Your task to perform on an android device: What is the recent news? Image 0: 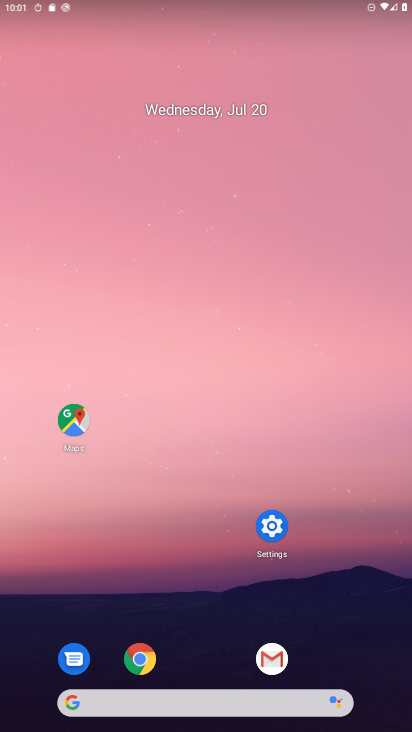
Step 0: press home button
Your task to perform on an android device: What is the recent news? Image 1: 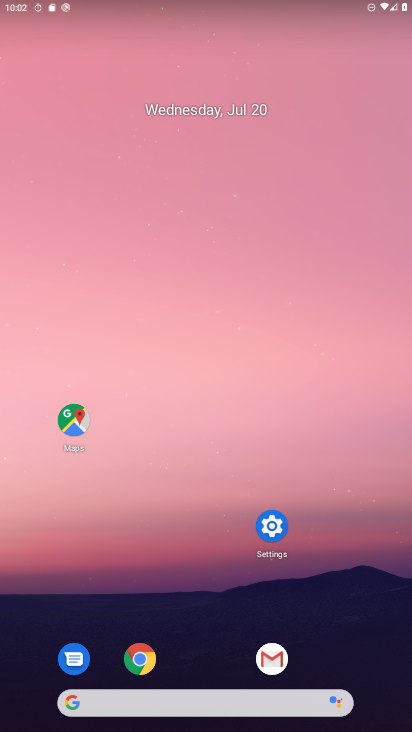
Step 1: click (159, 698)
Your task to perform on an android device: What is the recent news? Image 2: 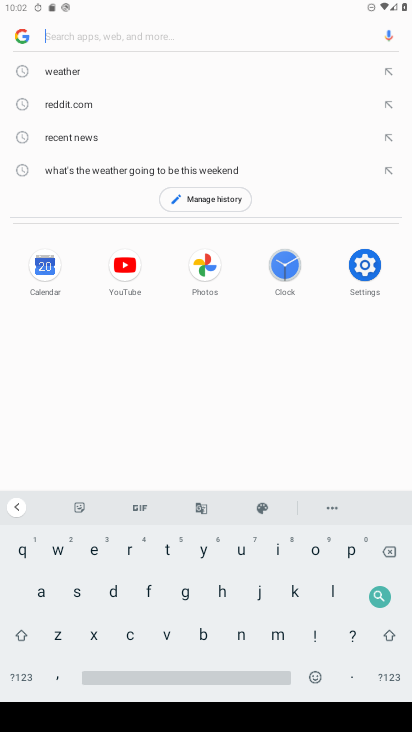
Step 2: click (85, 141)
Your task to perform on an android device: What is the recent news? Image 3: 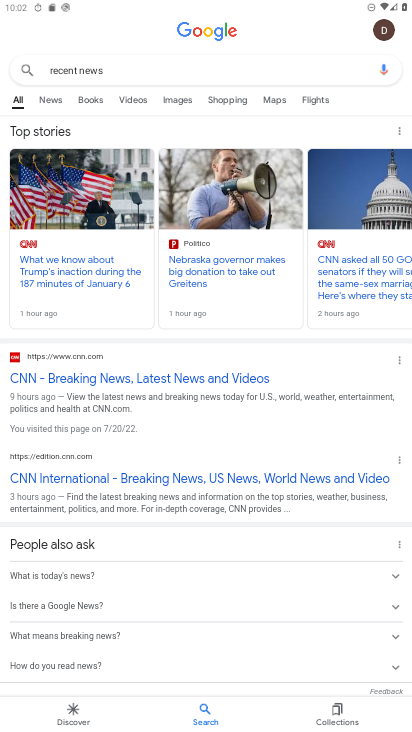
Step 3: task complete